Your task to perform on an android device: turn on priority inbox in the gmail app Image 0: 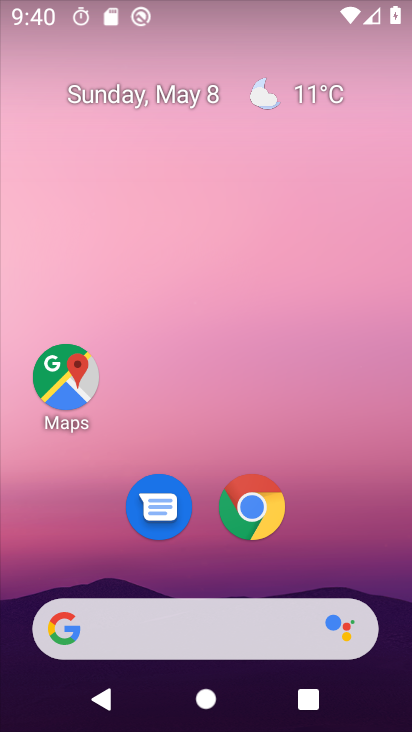
Step 0: drag from (318, 434) to (307, 96)
Your task to perform on an android device: turn on priority inbox in the gmail app Image 1: 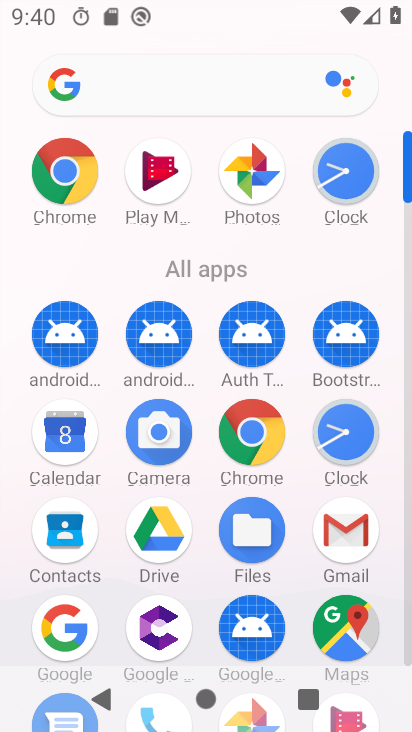
Step 1: click (345, 519)
Your task to perform on an android device: turn on priority inbox in the gmail app Image 2: 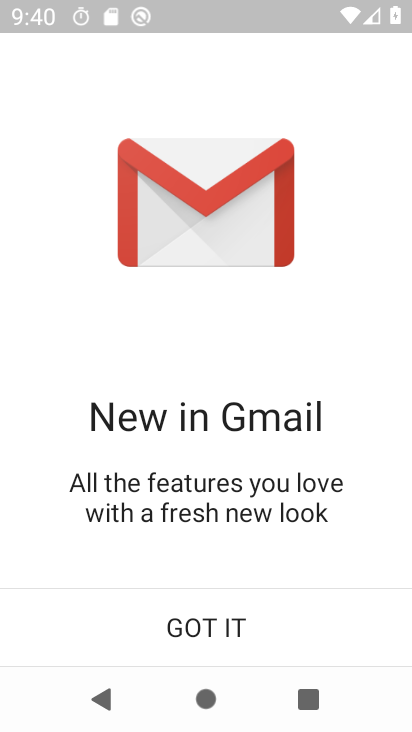
Step 2: click (229, 626)
Your task to perform on an android device: turn on priority inbox in the gmail app Image 3: 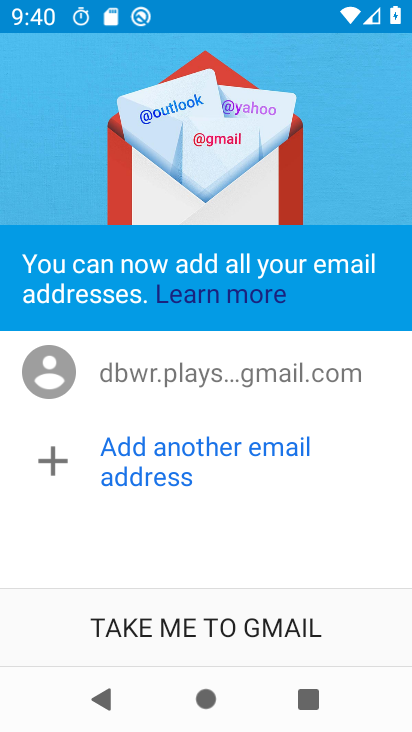
Step 3: click (238, 625)
Your task to perform on an android device: turn on priority inbox in the gmail app Image 4: 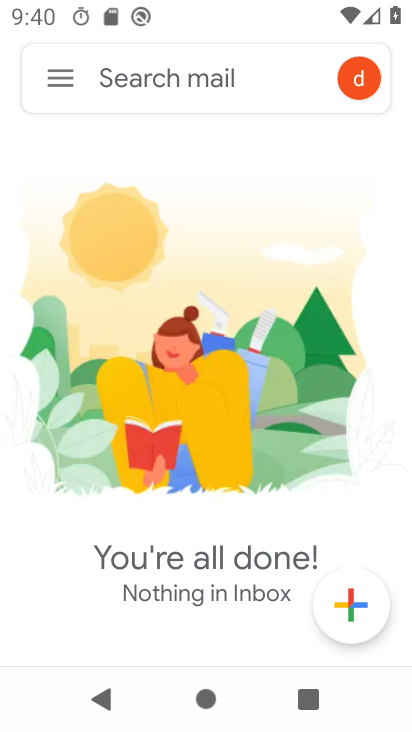
Step 4: click (65, 72)
Your task to perform on an android device: turn on priority inbox in the gmail app Image 5: 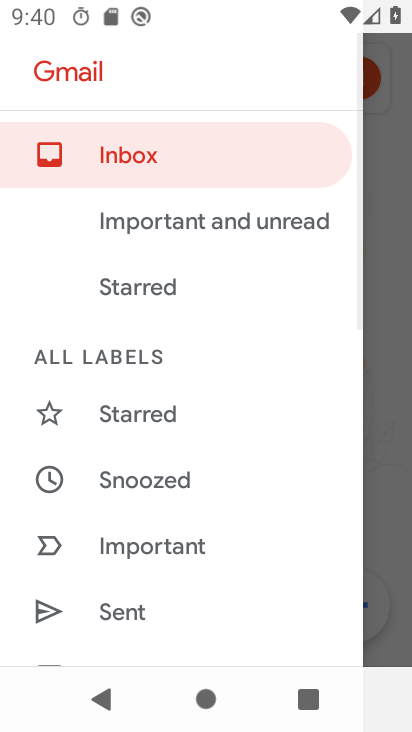
Step 5: drag from (189, 581) to (261, 134)
Your task to perform on an android device: turn on priority inbox in the gmail app Image 6: 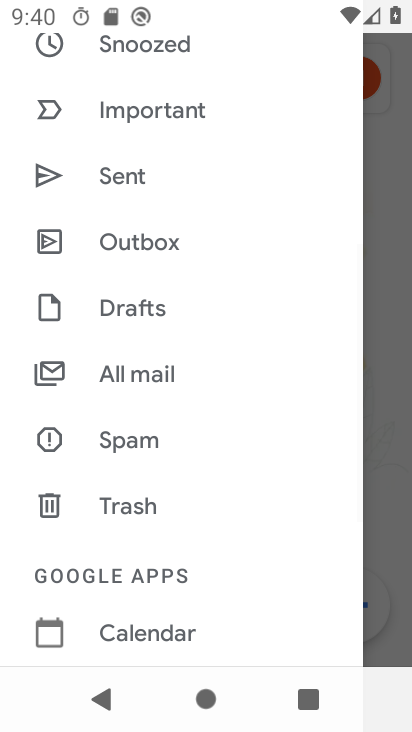
Step 6: drag from (173, 574) to (148, 165)
Your task to perform on an android device: turn on priority inbox in the gmail app Image 7: 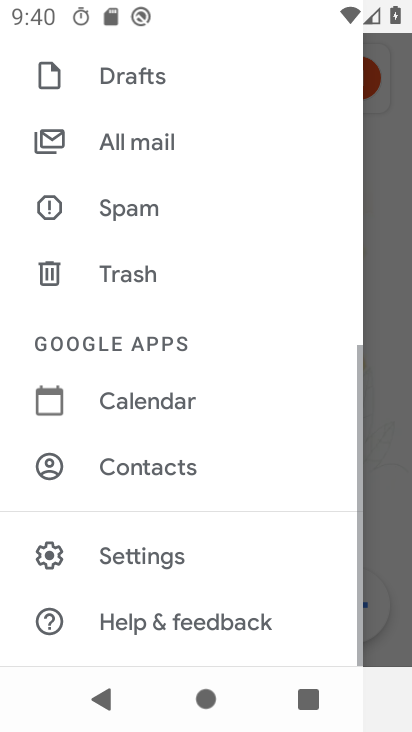
Step 7: click (144, 543)
Your task to perform on an android device: turn on priority inbox in the gmail app Image 8: 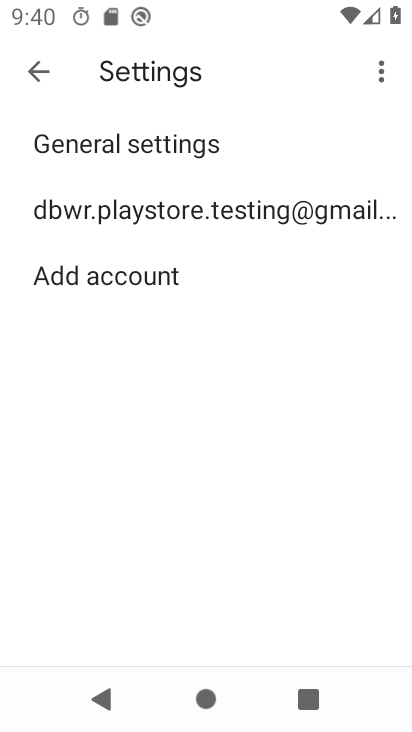
Step 8: click (238, 217)
Your task to perform on an android device: turn on priority inbox in the gmail app Image 9: 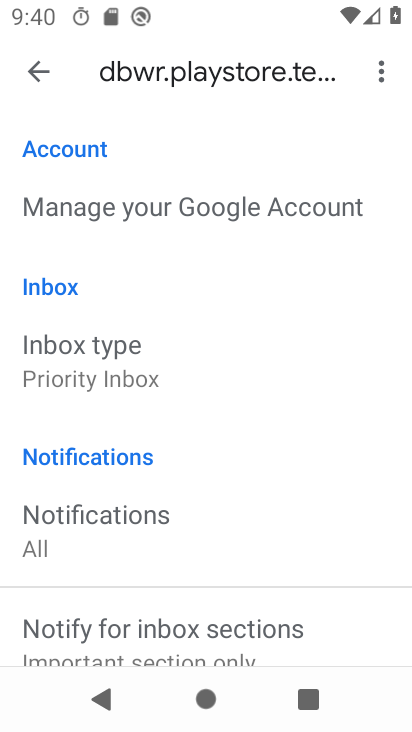
Step 9: click (116, 362)
Your task to perform on an android device: turn on priority inbox in the gmail app Image 10: 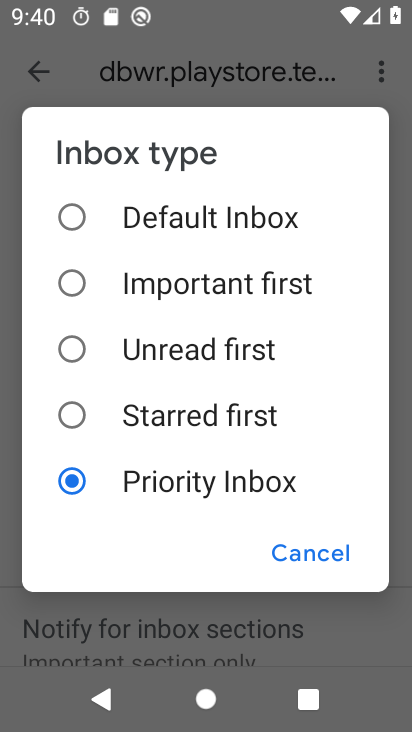
Step 10: task complete